Your task to perform on an android device: What's on my calendar tomorrow? Image 0: 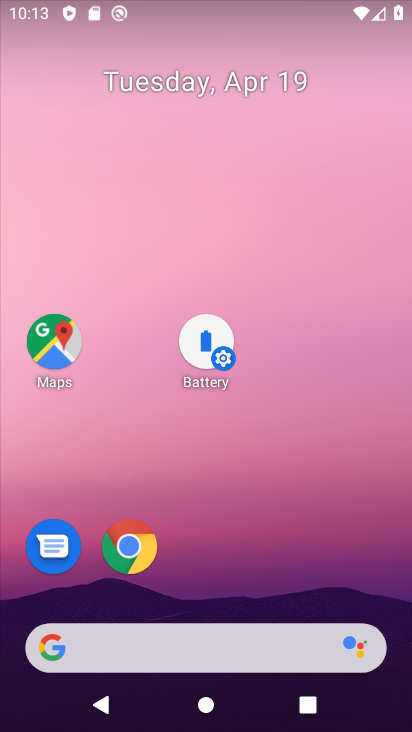
Step 0: drag from (239, 438) to (248, 88)
Your task to perform on an android device: What's on my calendar tomorrow? Image 1: 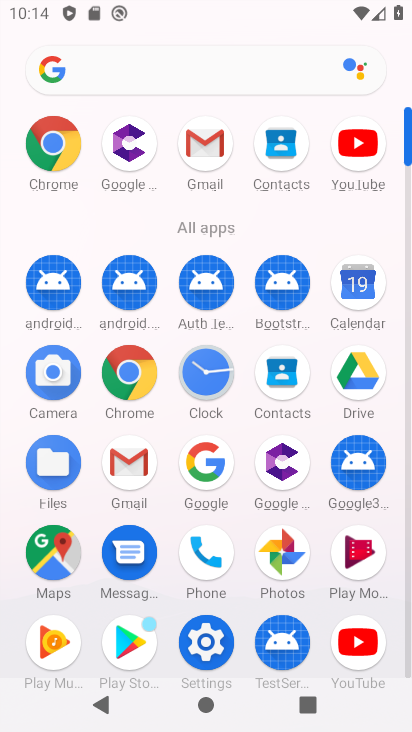
Step 1: click (377, 310)
Your task to perform on an android device: What's on my calendar tomorrow? Image 2: 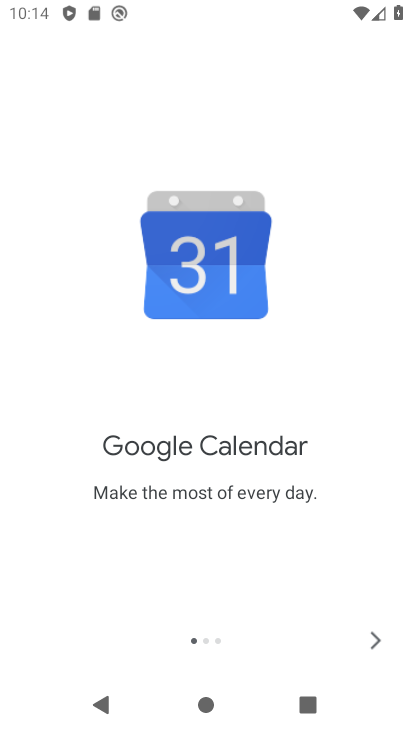
Step 2: click (374, 637)
Your task to perform on an android device: What's on my calendar tomorrow? Image 3: 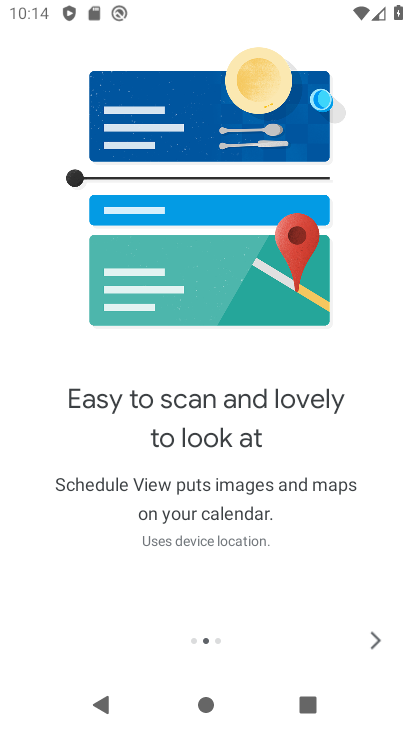
Step 3: click (374, 637)
Your task to perform on an android device: What's on my calendar tomorrow? Image 4: 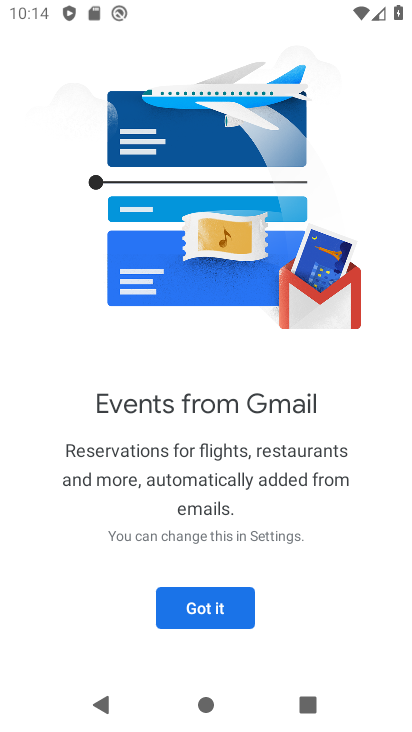
Step 4: click (247, 605)
Your task to perform on an android device: What's on my calendar tomorrow? Image 5: 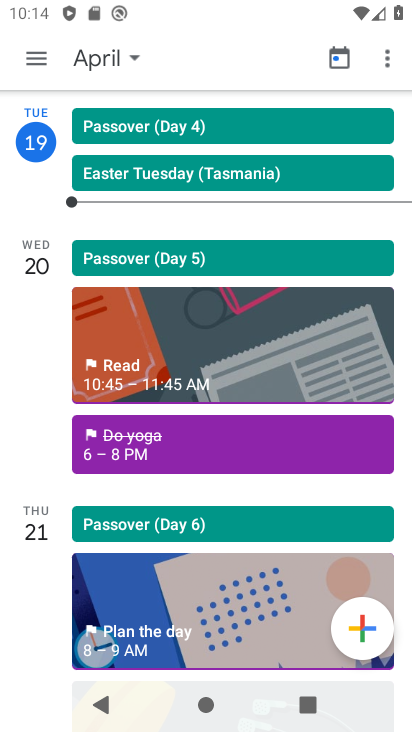
Step 5: drag from (257, 467) to (298, 167)
Your task to perform on an android device: What's on my calendar tomorrow? Image 6: 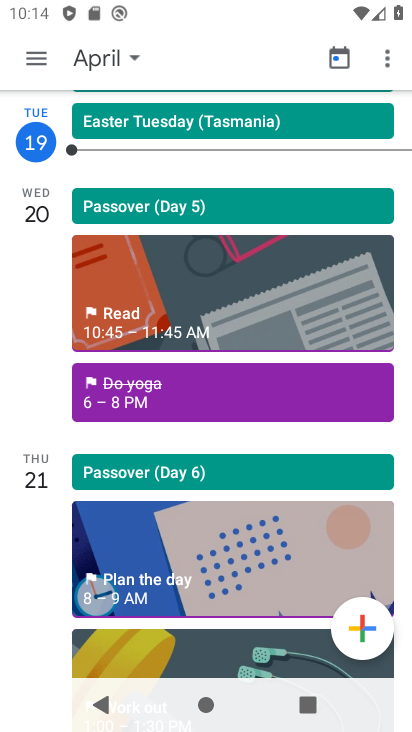
Step 6: drag from (168, 621) to (265, 327)
Your task to perform on an android device: What's on my calendar tomorrow? Image 7: 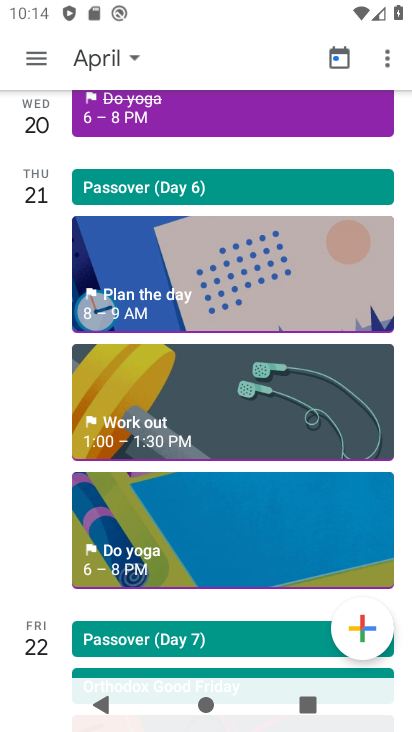
Step 7: click (225, 391)
Your task to perform on an android device: What's on my calendar tomorrow? Image 8: 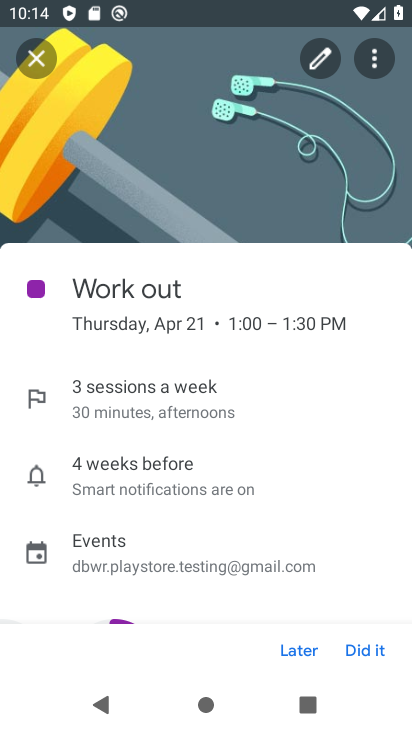
Step 8: task complete